Your task to perform on an android device: Open calendar and show me the fourth week of next month Image 0: 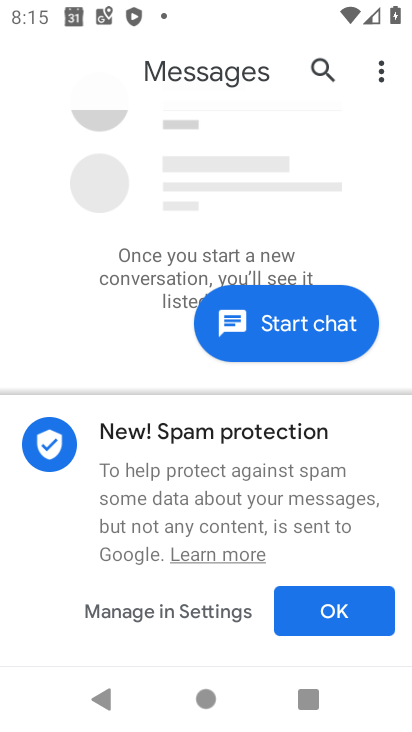
Step 0: press home button
Your task to perform on an android device: Open calendar and show me the fourth week of next month Image 1: 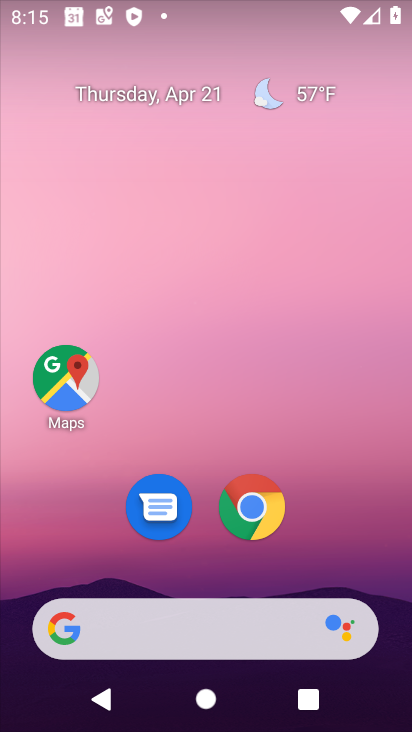
Step 1: drag from (330, 438) to (283, 0)
Your task to perform on an android device: Open calendar and show me the fourth week of next month Image 2: 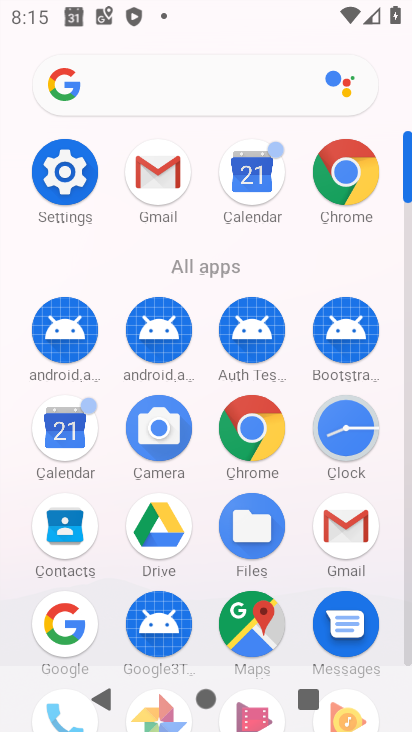
Step 2: click (69, 420)
Your task to perform on an android device: Open calendar and show me the fourth week of next month Image 3: 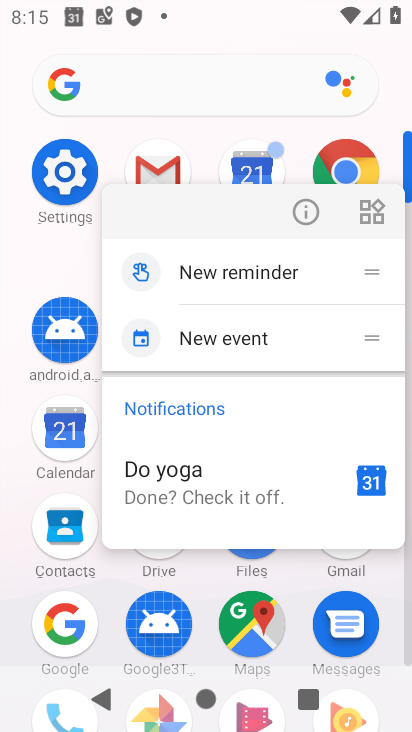
Step 3: click (69, 420)
Your task to perform on an android device: Open calendar and show me the fourth week of next month Image 4: 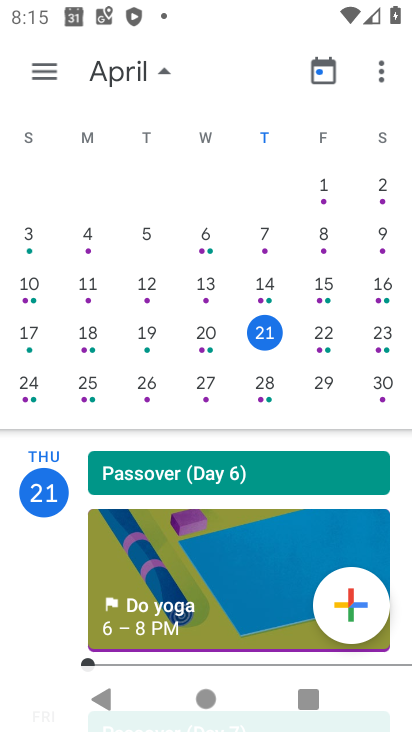
Step 4: drag from (393, 274) to (12, 405)
Your task to perform on an android device: Open calendar and show me the fourth week of next month Image 5: 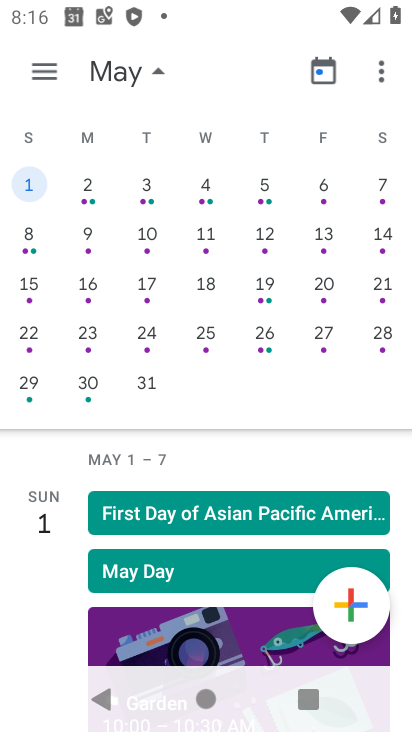
Step 5: click (16, 338)
Your task to perform on an android device: Open calendar and show me the fourth week of next month Image 6: 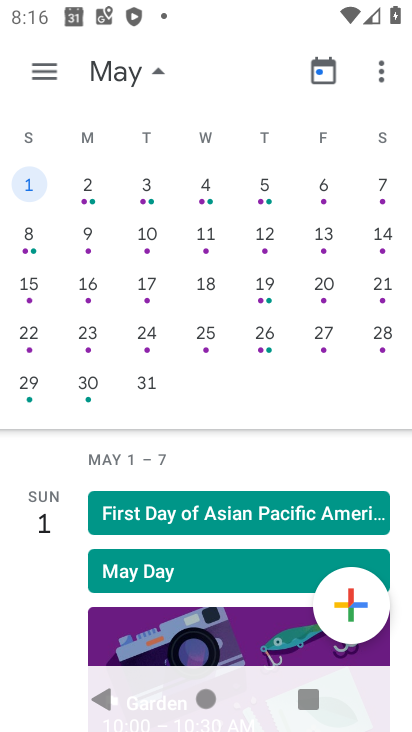
Step 6: click (33, 327)
Your task to perform on an android device: Open calendar and show me the fourth week of next month Image 7: 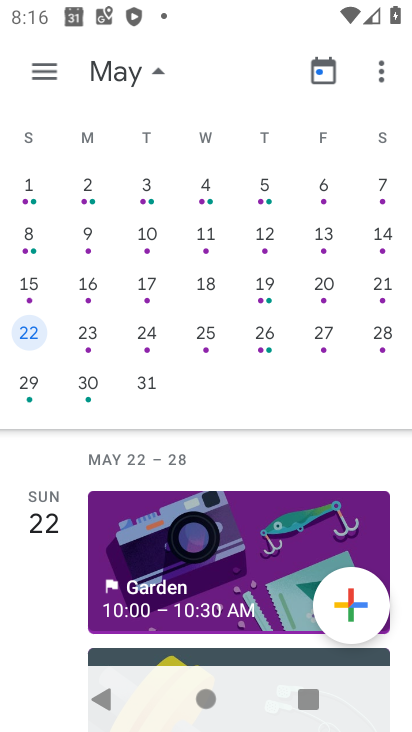
Step 7: task complete